Your task to perform on an android device: What's the weather? Image 0: 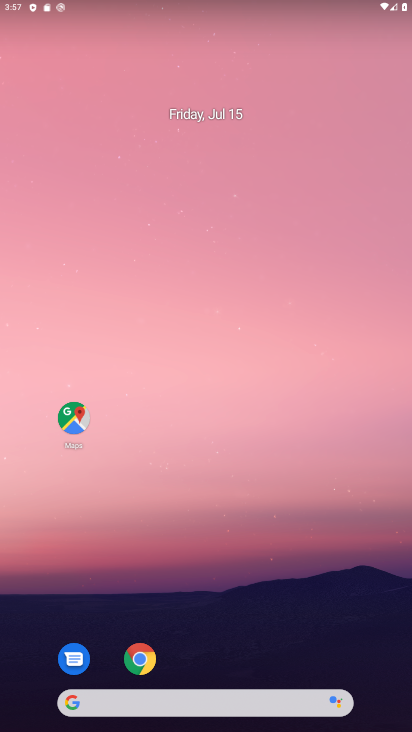
Step 0: drag from (232, 695) to (263, 312)
Your task to perform on an android device: What's the weather? Image 1: 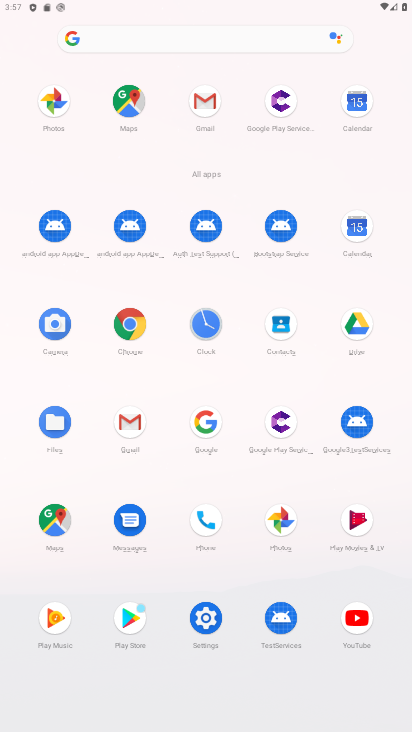
Step 1: click (145, 326)
Your task to perform on an android device: What's the weather? Image 2: 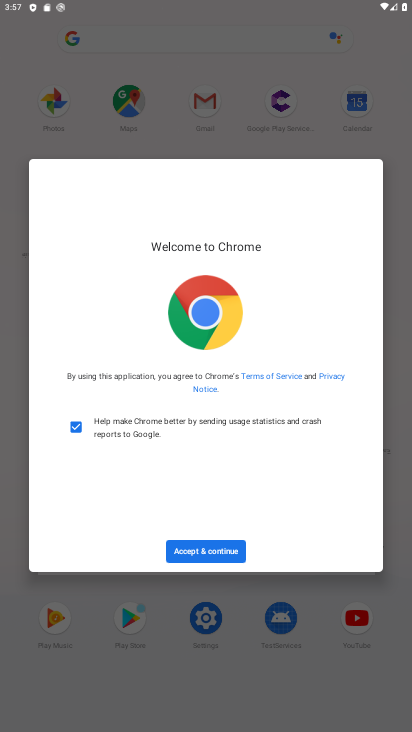
Step 2: click (209, 548)
Your task to perform on an android device: What's the weather? Image 3: 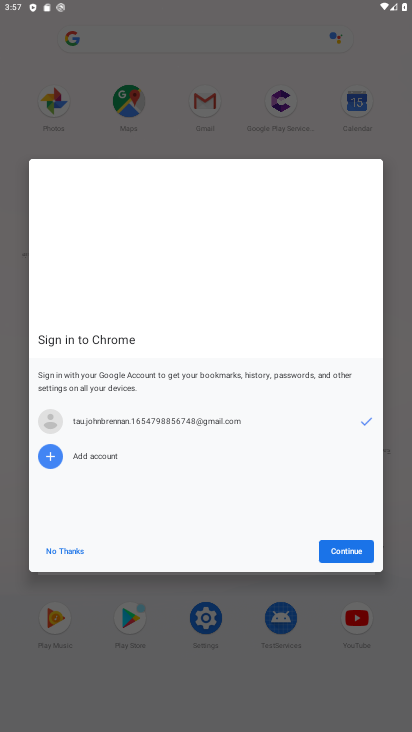
Step 3: click (72, 549)
Your task to perform on an android device: What's the weather? Image 4: 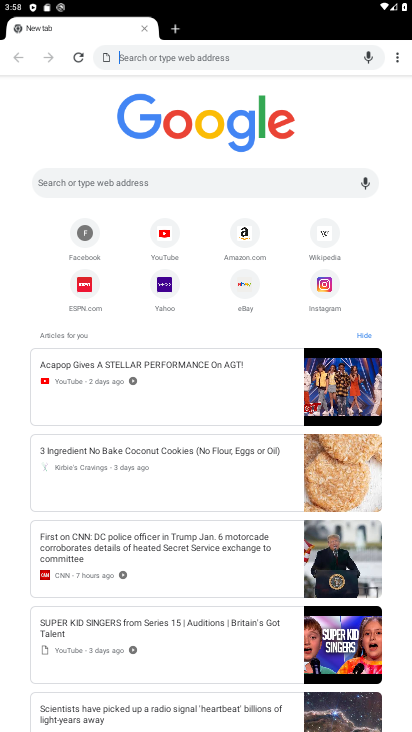
Step 4: type "whats the weather"
Your task to perform on an android device: What's the weather? Image 5: 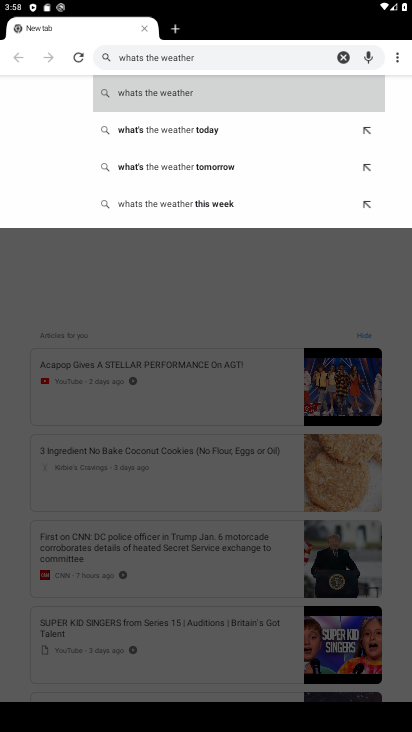
Step 5: click (178, 92)
Your task to perform on an android device: What's the weather? Image 6: 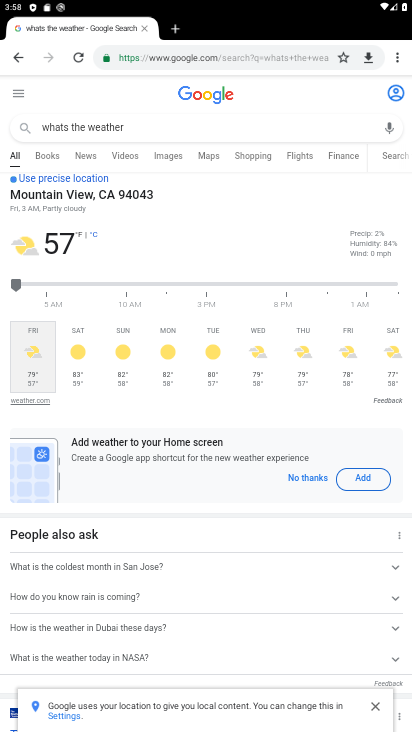
Step 6: task complete